Your task to perform on an android device: allow notifications from all sites in the chrome app Image 0: 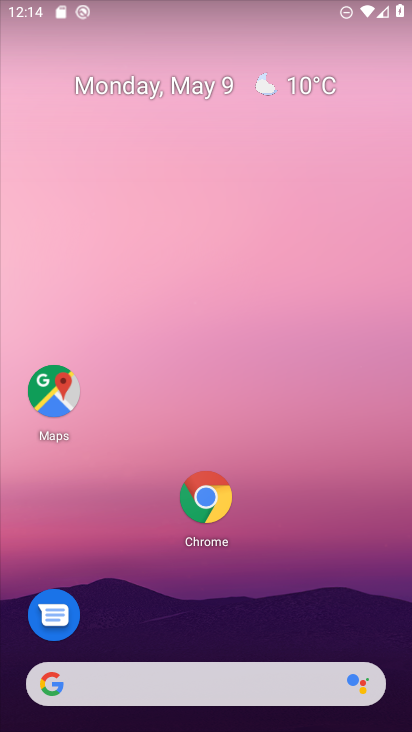
Step 0: click (206, 498)
Your task to perform on an android device: allow notifications from all sites in the chrome app Image 1: 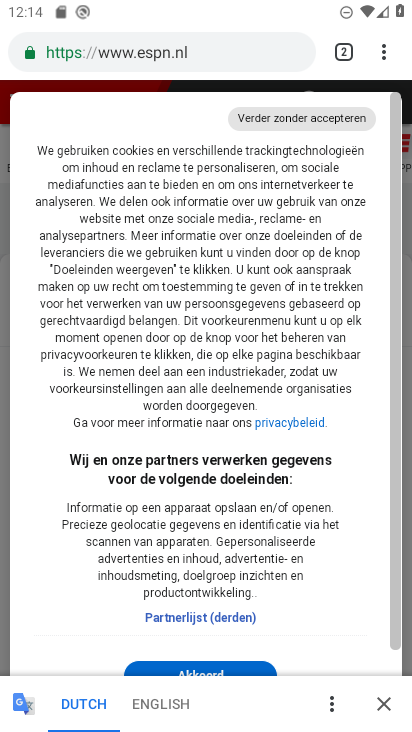
Step 1: click (387, 45)
Your task to perform on an android device: allow notifications from all sites in the chrome app Image 2: 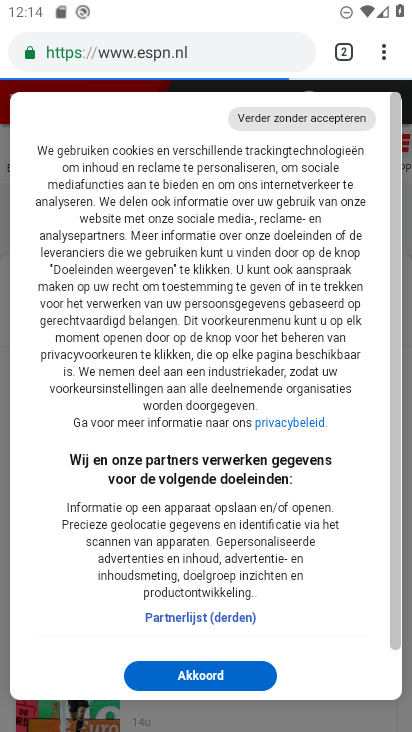
Step 2: drag from (381, 53) to (208, 628)
Your task to perform on an android device: allow notifications from all sites in the chrome app Image 3: 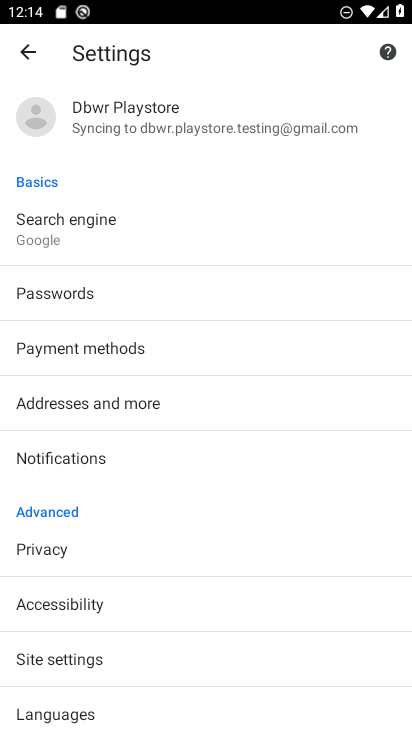
Step 3: click (72, 651)
Your task to perform on an android device: allow notifications from all sites in the chrome app Image 4: 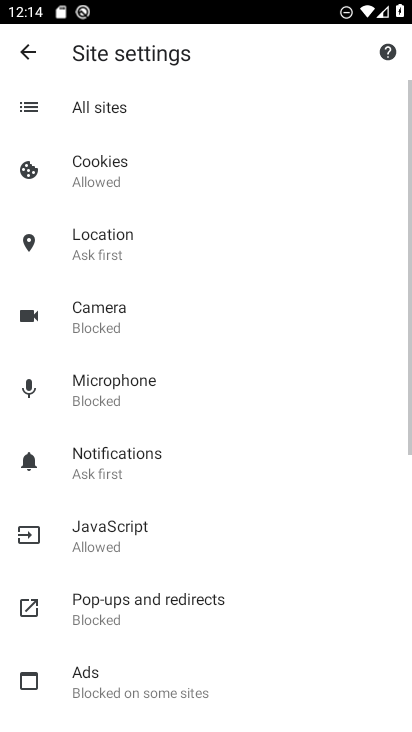
Step 4: click (26, 54)
Your task to perform on an android device: allow notifications from all sites in the chrome app Image 5: 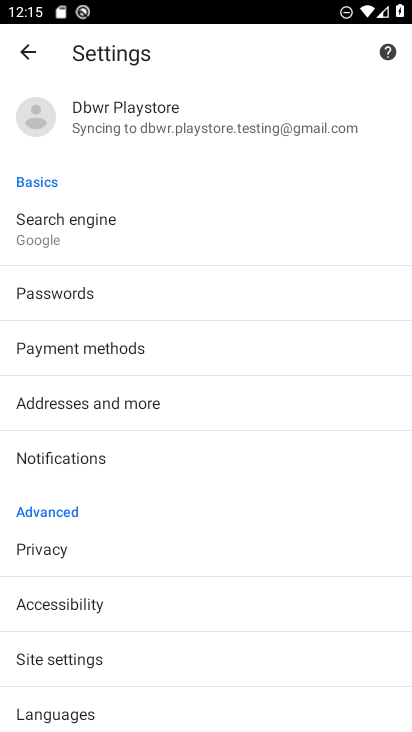
Step 5: click (138, 648)
Your task to perform on an android device: allow notifications from all sites in the chrome app Image 6: 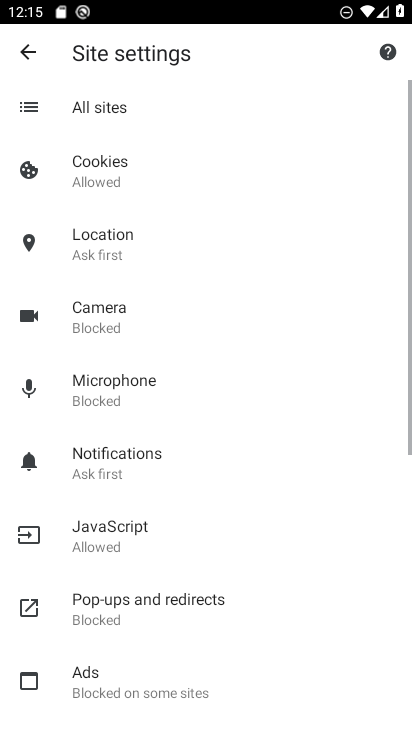
Step 6: drag from (299, 639) to (278, 176)
Your task to perform on an android device: allow notifications from all sites in the chrome app Image 7: 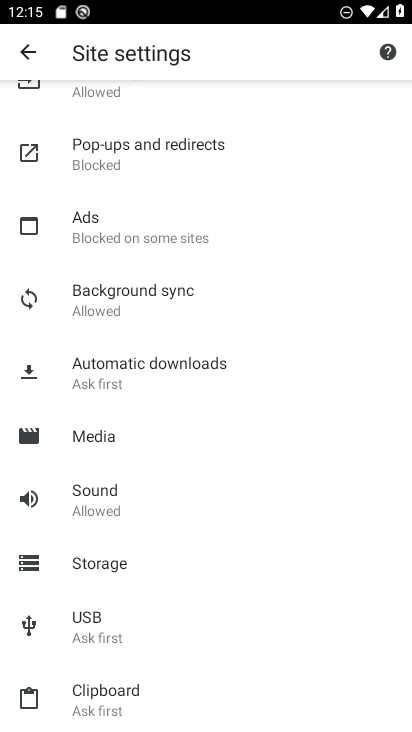
Step 7: click (21, 52)
Your task to perform on an android device: allow notifications from all sites in the chrome app Image 8: 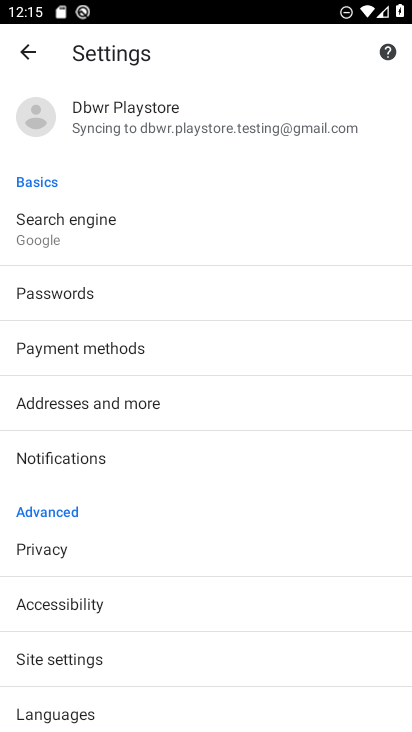
Step 8: drag from (168, 690) to (161, 725)
Your task to perform on an android device: allow notifications from all sites in the chrome app Image 9: 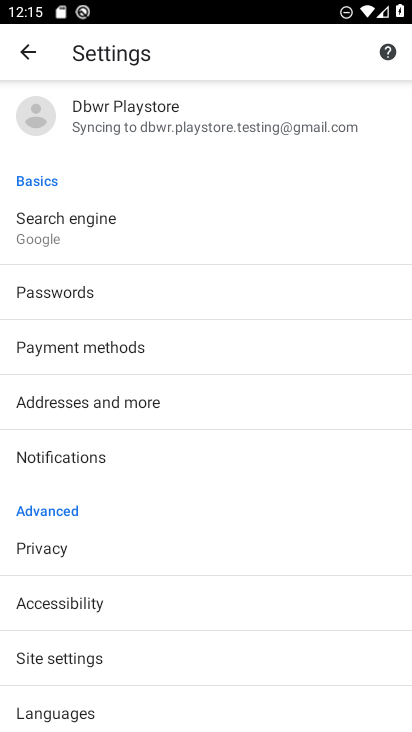
Step 9: click (33, 43)
Your task to perform on an android device: allow notifications from all sites in the chrome app Image 10: 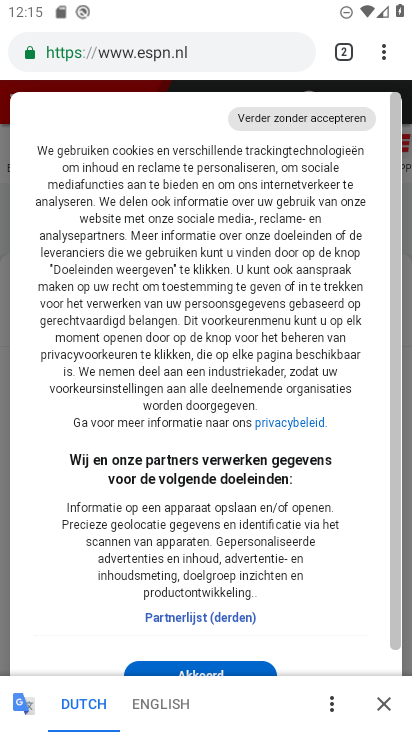
Step 10: drag from (389, 54) to (224, 627)
Your task to perform on an android device: allow notifications from all sites in the chrome app Image 11: 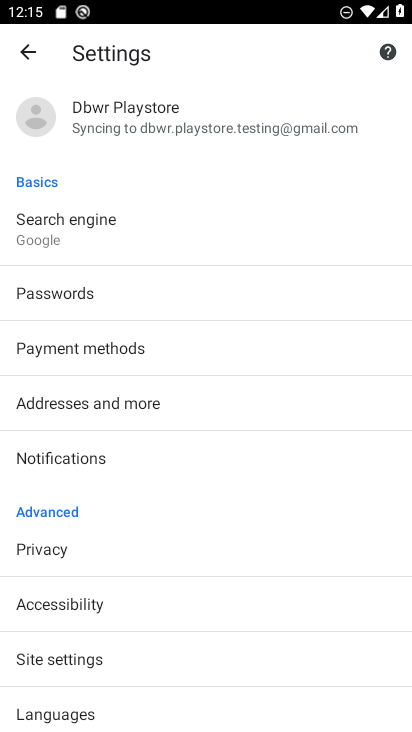
Step 11: drag from (128, 615) to (209, 306)
Your task to perform on an android device: allow notifications from all sites in the chrome app Image 12: 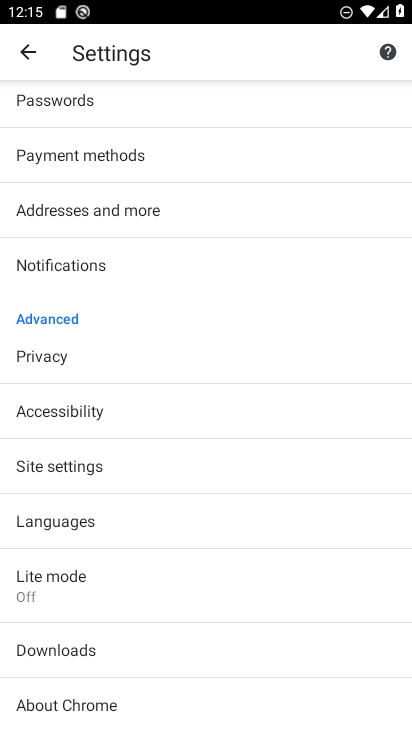
Step 12: click (84, 269)
Your task to perform on an android device: allow notifications from all sites in the chrome app Image 13: 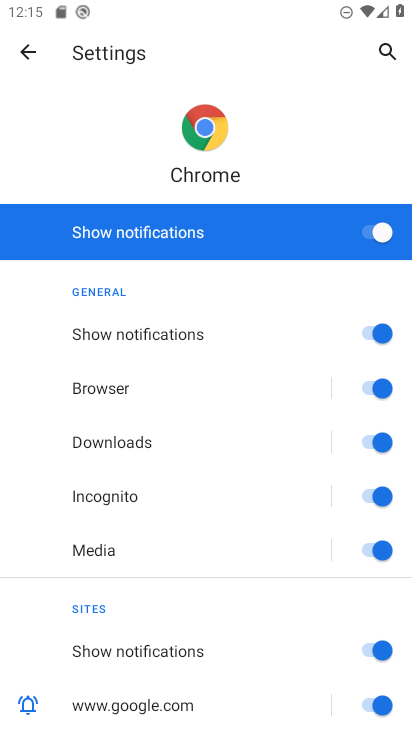
Step 13: task complete